Your task to perform on an android device: Go to Android settings Image 0: 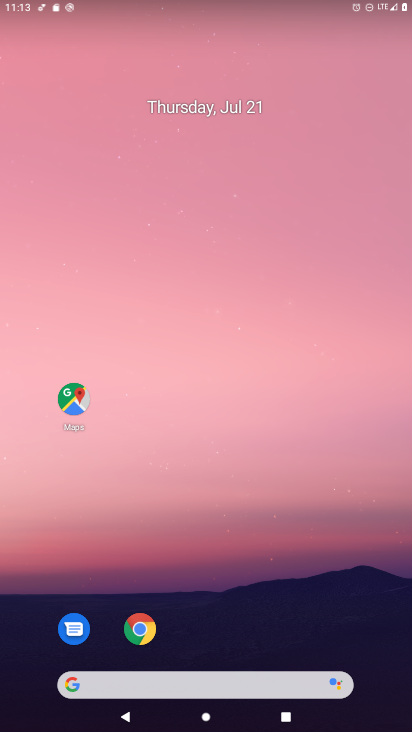
Step 0: drag from (143, 616) to (117, 43)
Your task to perform on an android device: Go to Android settings Image 1: 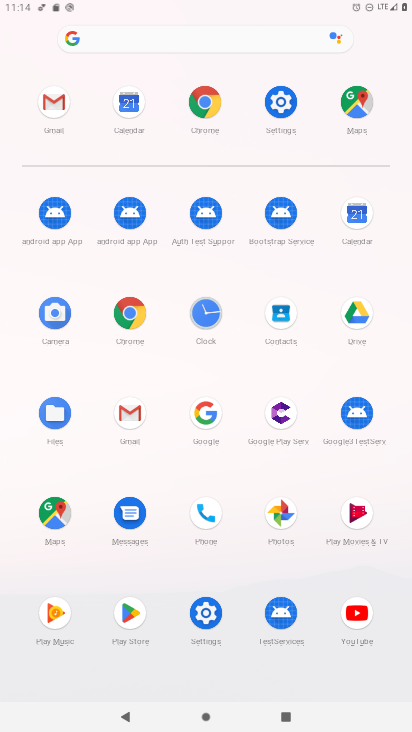
Step 1: click (220, 633)
Your task to perform on an android device: Go to Android settings Image 2: 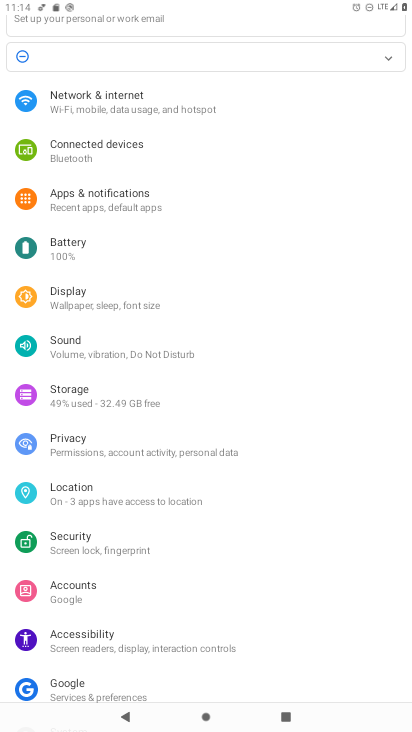
Step 2: drag from (83, 606) to (83, 43)
Your task to perform on an android device: Go to Android settings Image 3: 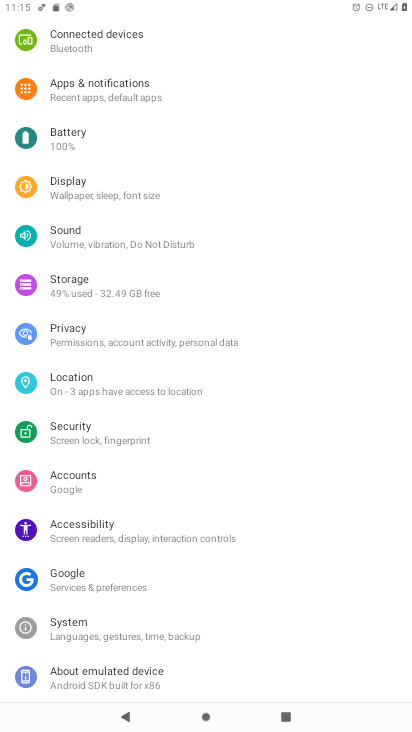
Step 3: click (158, 693)
Your task to perform on an android device: Go to Android settings Image 4: 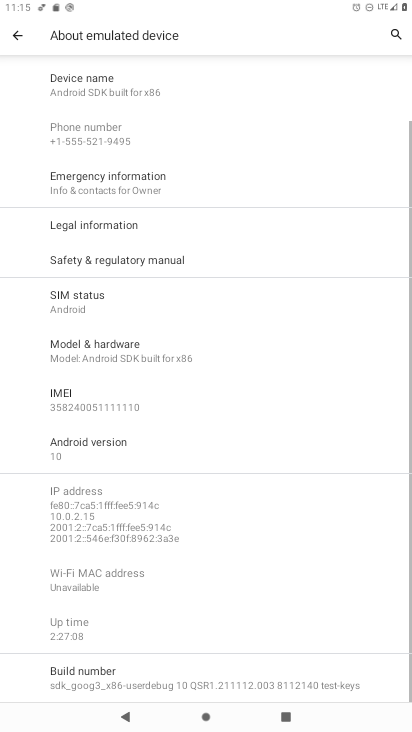
Step 4: click (73, 446)
Your task to perform on an android device: Go to Android settings Image 5: 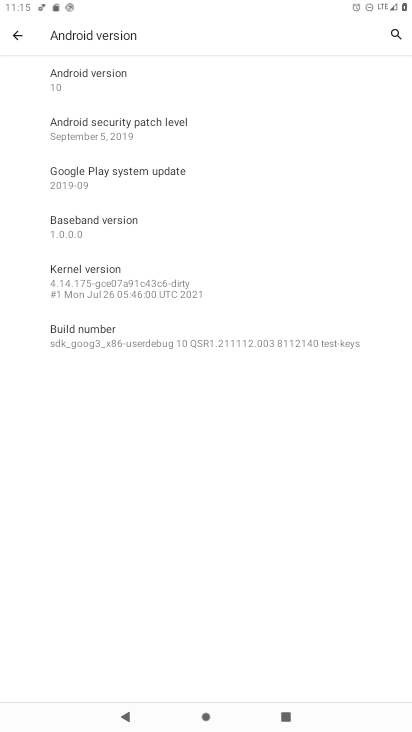
Step 5: task complete